Your task to perform on an android device: turn off notifications settings in the gmail app Image 0: 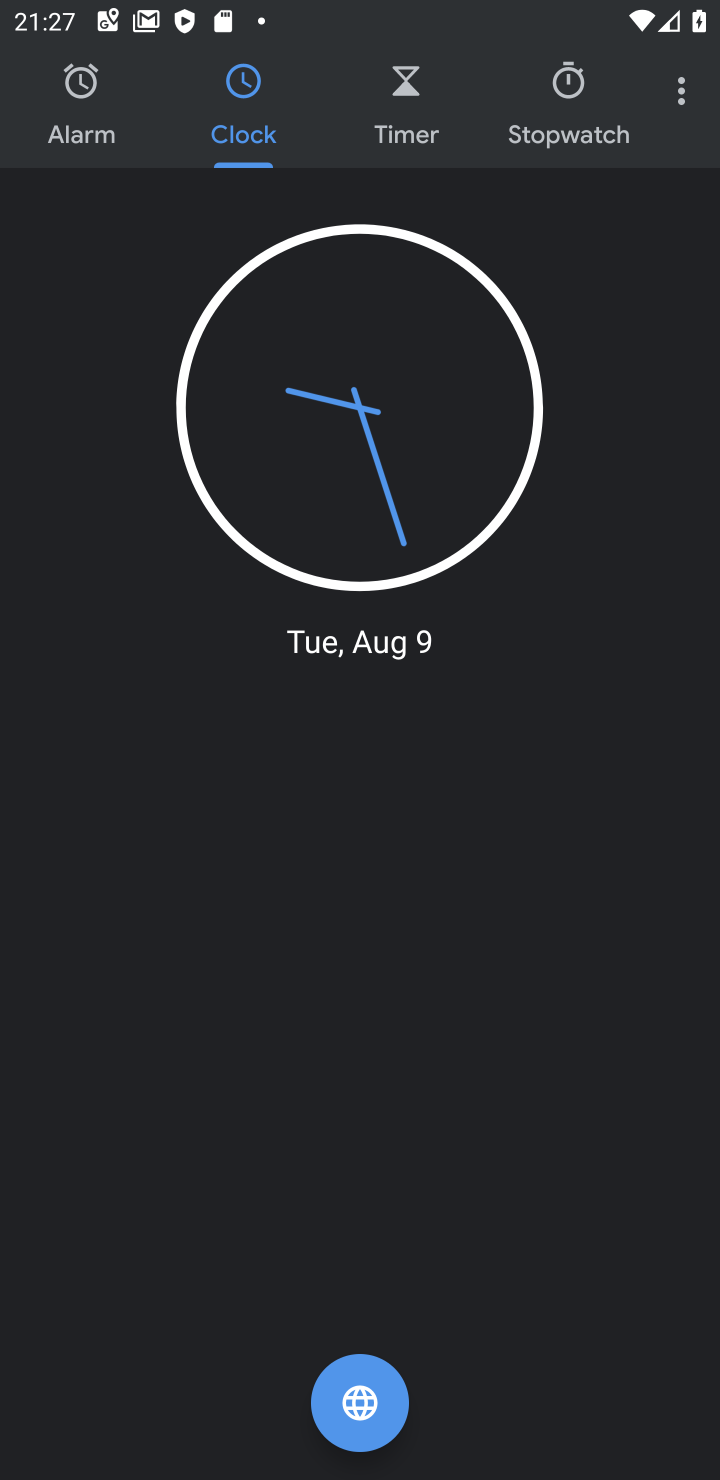
Step 0: press home button
Your task to perform on an android device: turn off notifications settings in the gmail app Image 1: 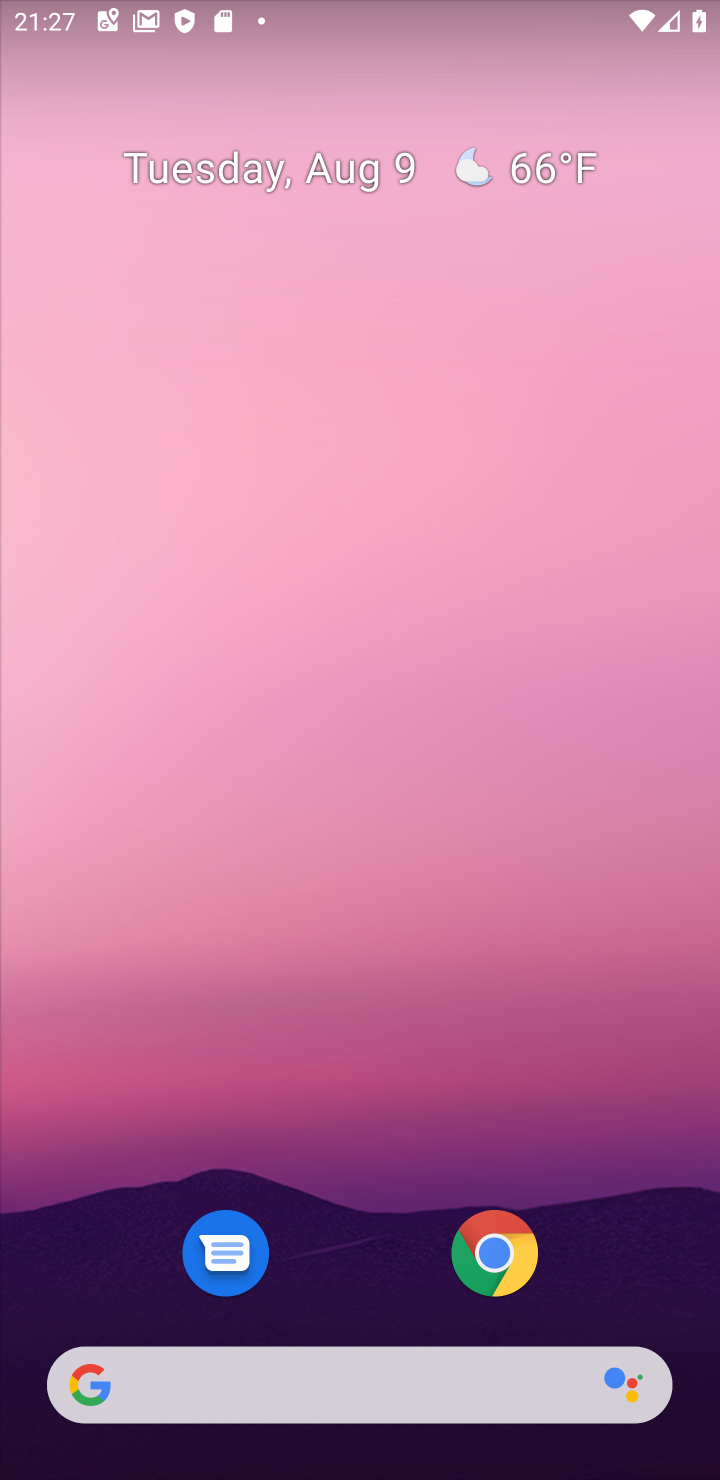
Step 1: drag from (320, 1215) to (317, 183)
Your task to perform on an android device: turn off notifications settings in the gmail app Image 2: 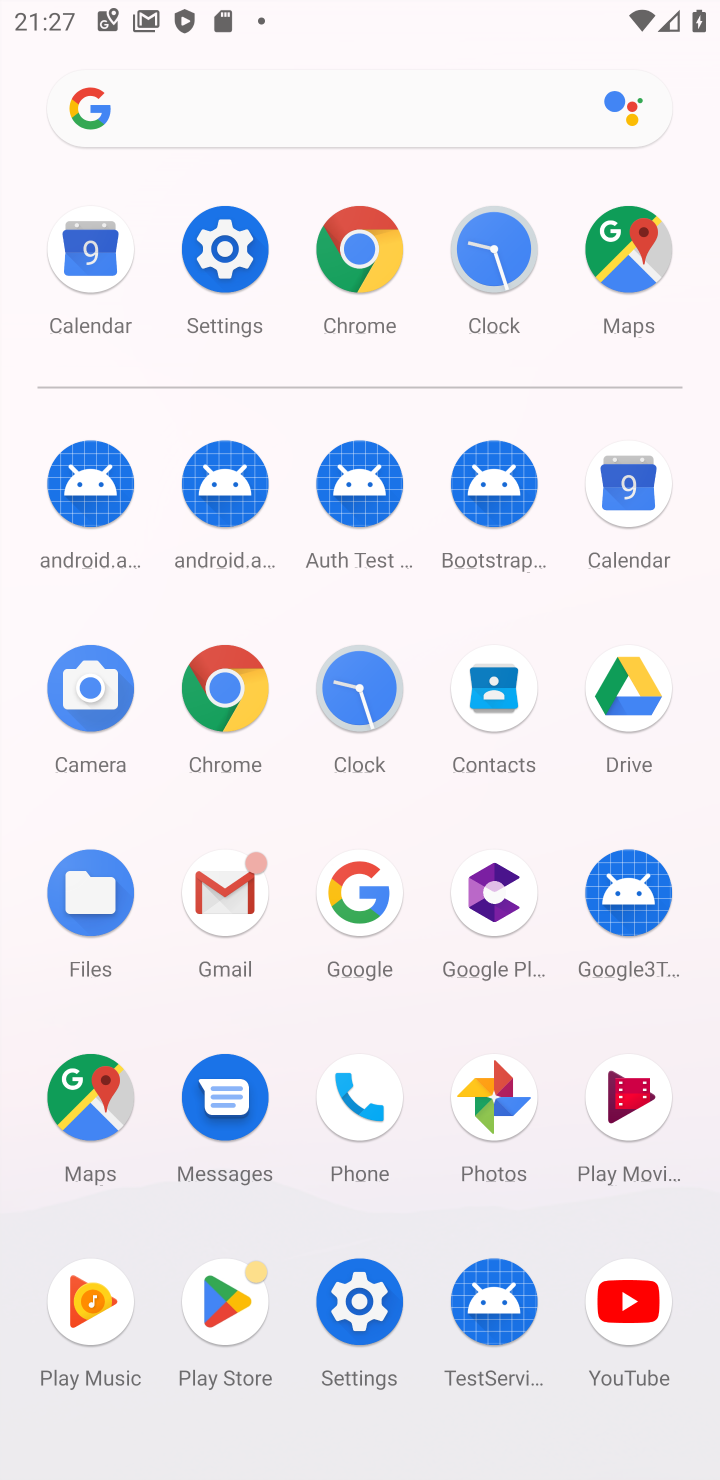
Step 2: click (210, 888)
Your task to perform on an android device: turn off notifications settings in the gmail app Image 3: 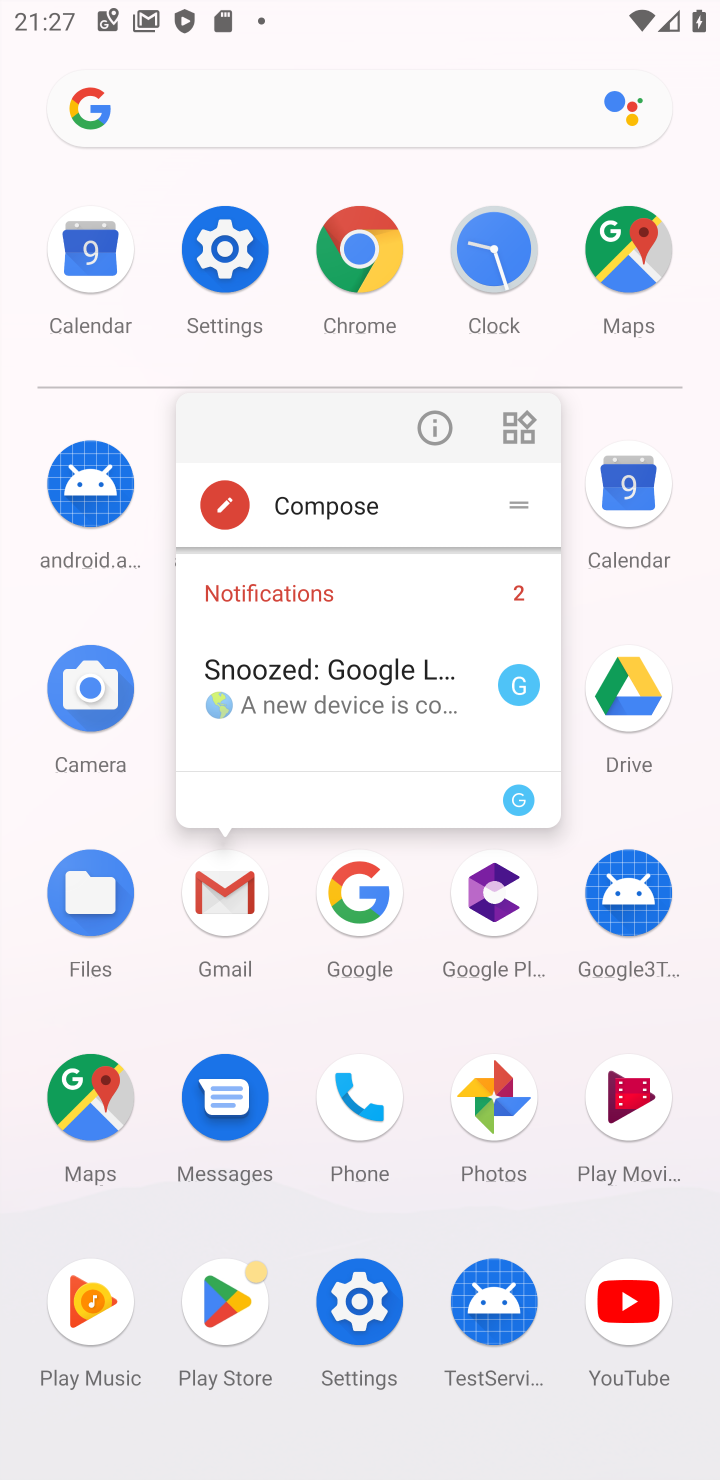
Step 3: click (215, 895)
Your task to perform on an android device: turn off notifications settings in the gmail app Image 4: 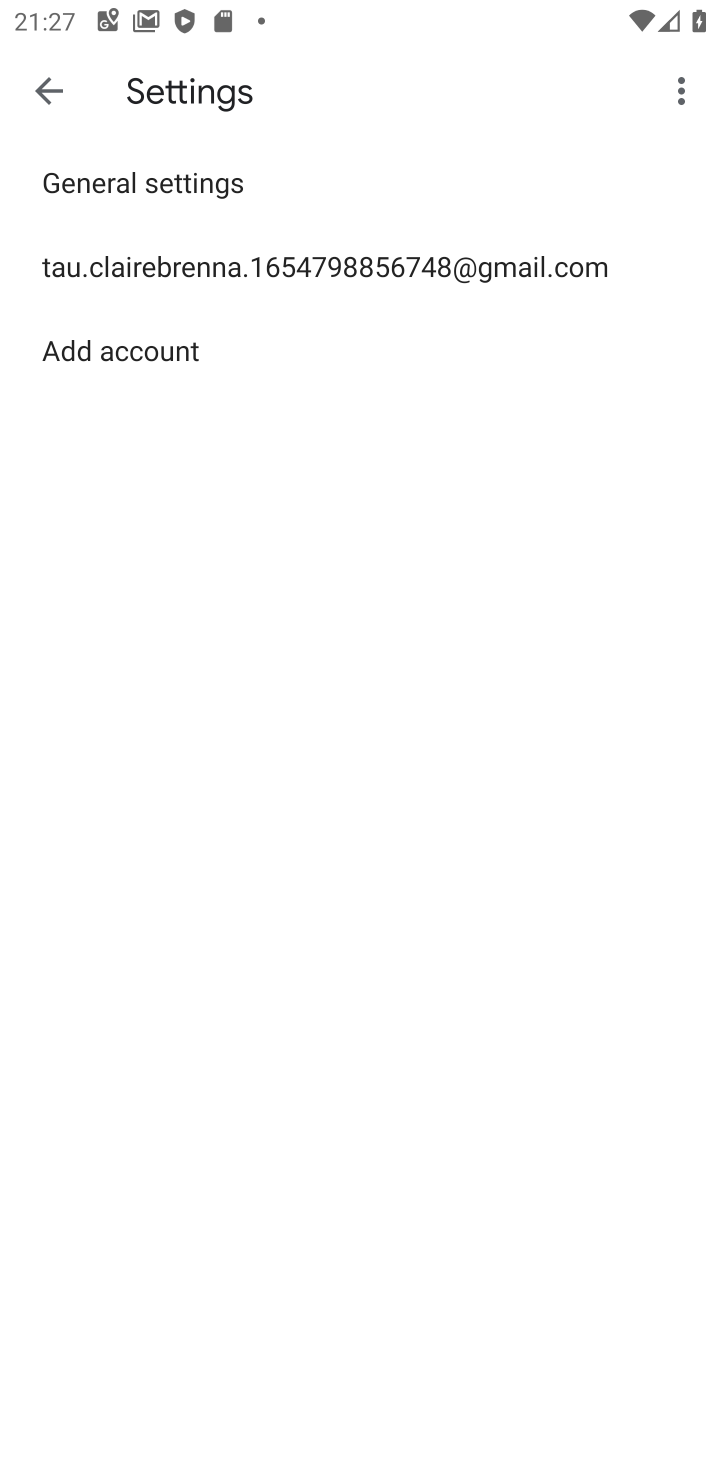
Step 4: click (280, 264)
Your task to perform on an android device: turn off notifications settings in the gmail app Image 5: 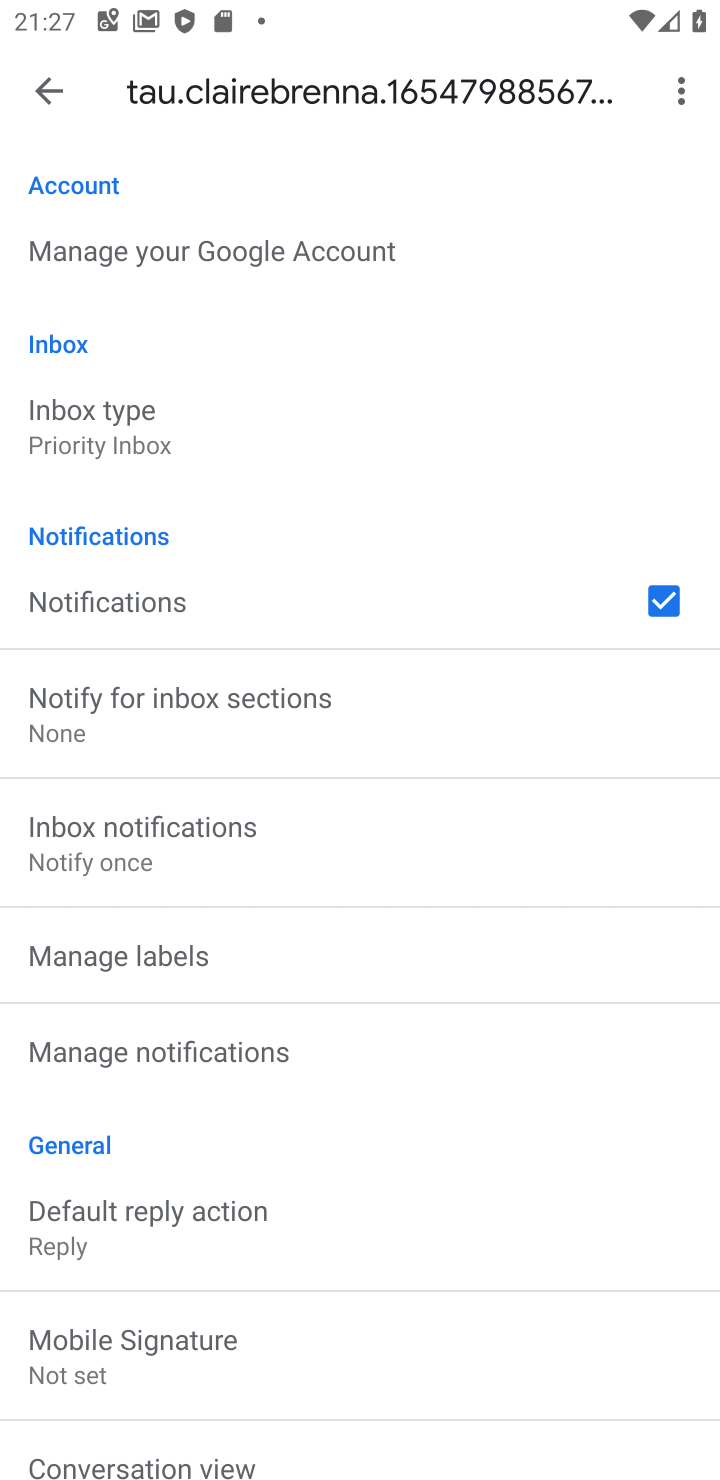
Step 5: click (238, 1059)
Your task to perform on an android device: turn off notifications settings in the gmail app Image 6: 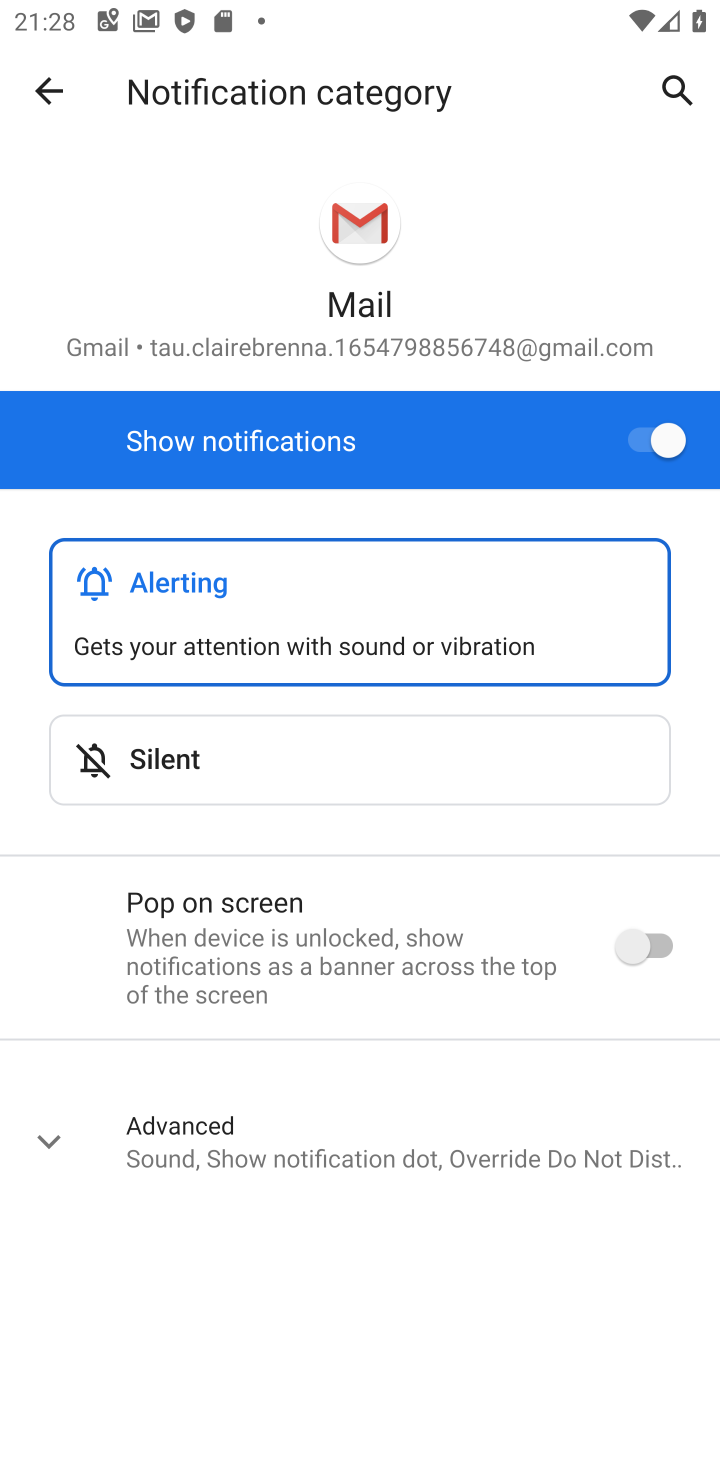
Step 6: click (640, 426)
Your task to perform on an android device: turn off notifications settings in the gmail app Image 7: 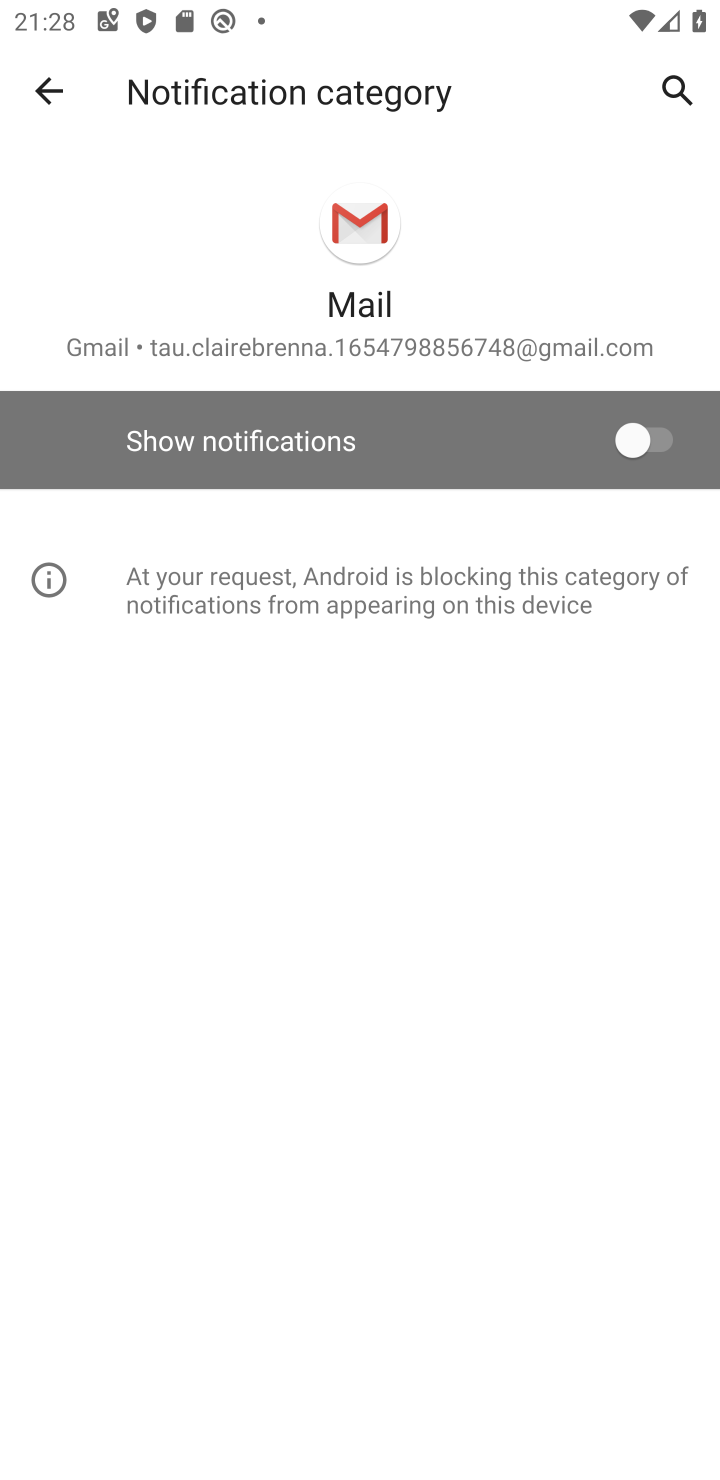
Step 7: task complete